Your task to perform on an android device: Go to Amazon Image 0: 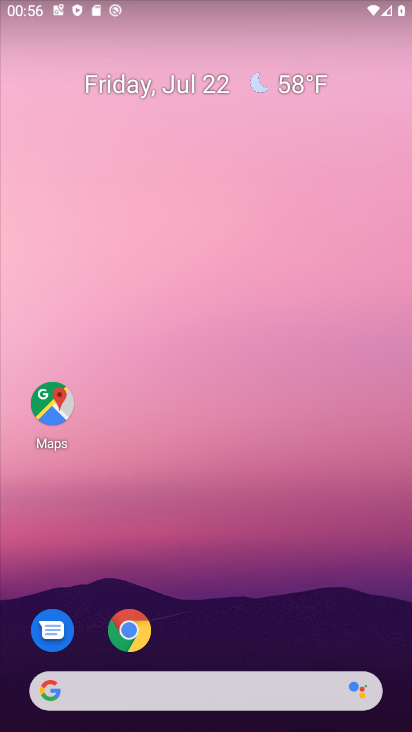
Step 0: drag from (273, 597) to (335, 45)
Your task to perform on an android device: Go to Amazon Image 1: 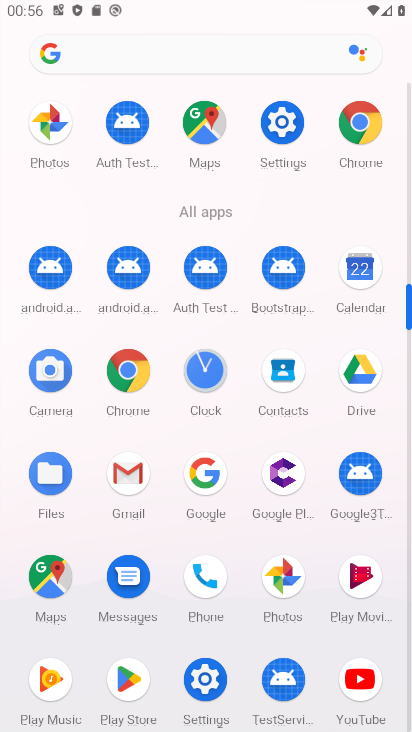
Step 1: click (124, 373)
Your task to perform on an android device: Go to Amazon Image 2: 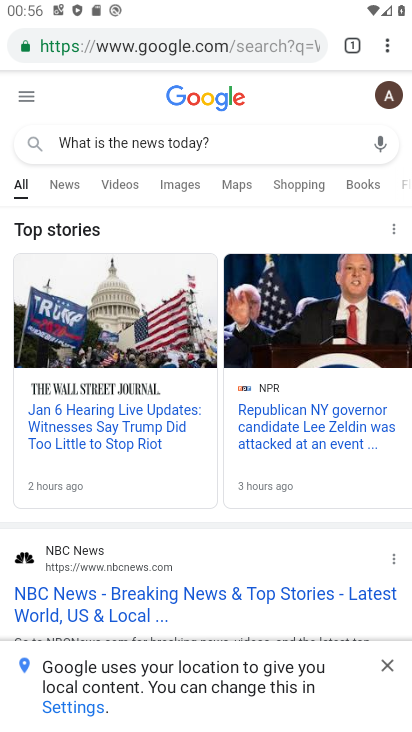
Step 2: drag from (381, 35) to (246, 84)
Your task to perform on an android device: Go to Amazon Image 3: 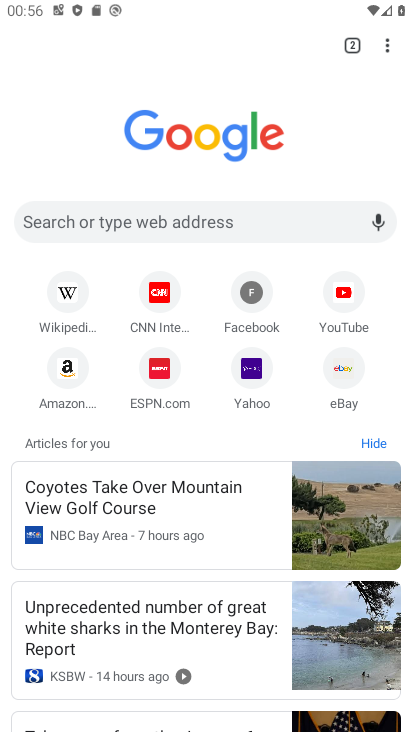
Step 3: click (66, 370)
Your task to perform on an android device: Go to Amazon Image 4: 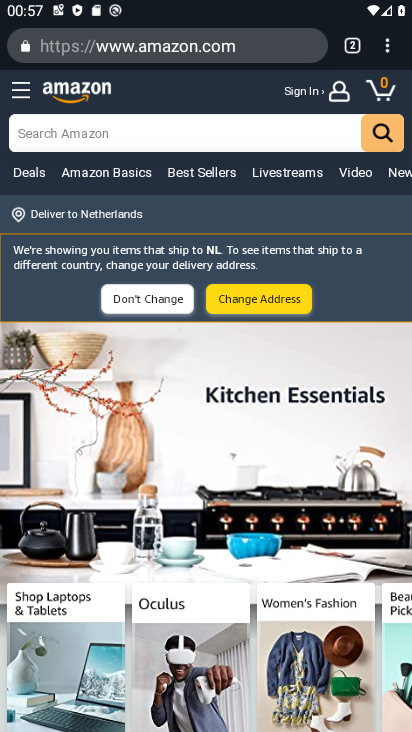
Step 4: task complete